Your task to perform on an android device: turn on showing notifications on the lock screen Image 0: 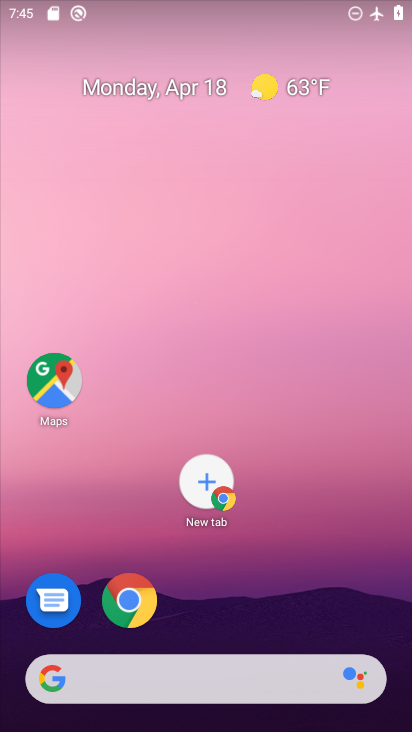
Step 0: drag from (309, 605) to (206, 1)
Your task to perform on an android device: turn on showing notifications on the lock screen Image 1: 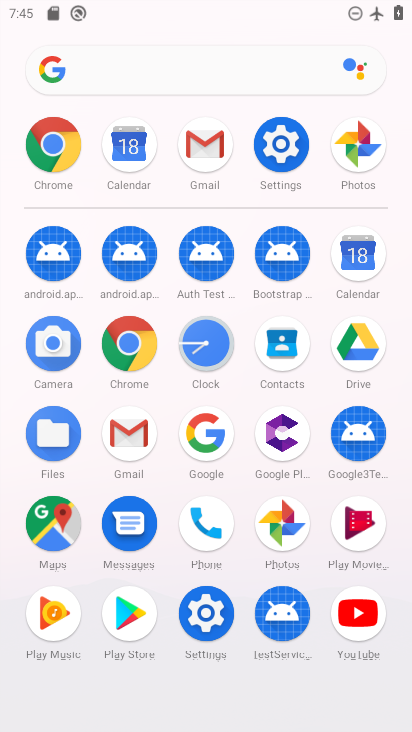
Step 1: click (281, 149)
Your task to perform on an android device: turn on showing notifications on the lock screen Image 2: 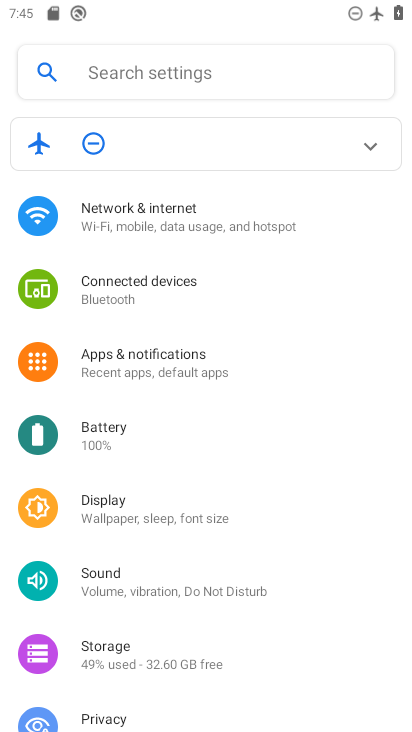
Step 2: click (171, 351)
Your task to perform on an android device: turn on showing notifications on the lock screen Image 3: 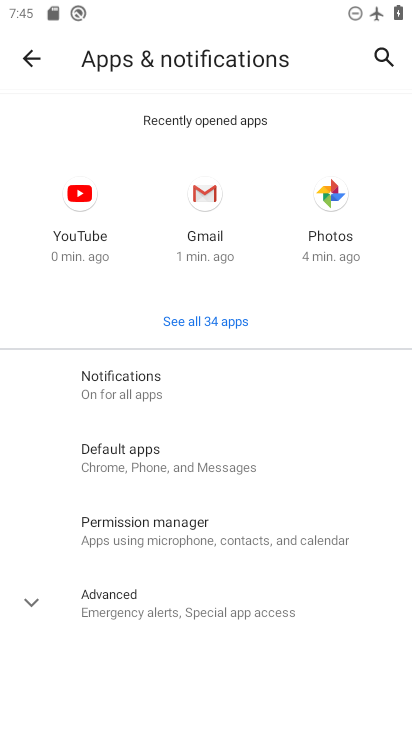
Step 3: click (125, 376)
Your task to perform on an android device: turn on showing notifications on the lock screen Image 4: 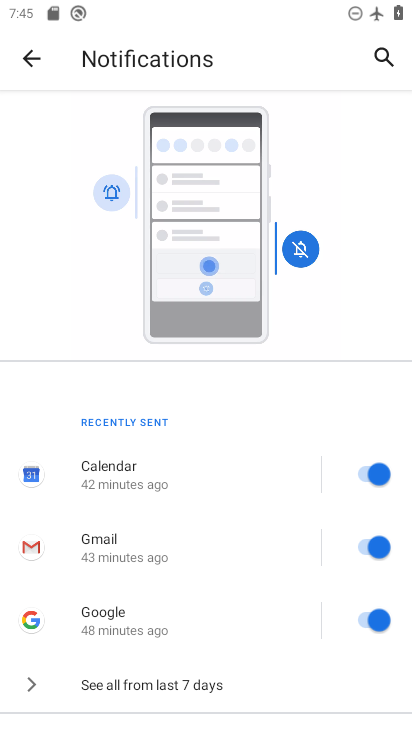
Step 4: drag from (264, 651) to (225, 30)
Your task to perform on an android device: turn on showing notifications on the lock screen Image 5: 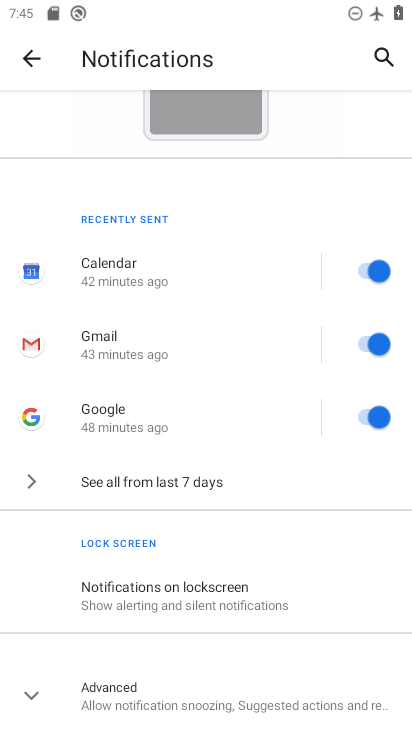
Step 5: click (162, 584)
Your task to perform on an android device: turn on showing notifications on the lock screen Image 6: 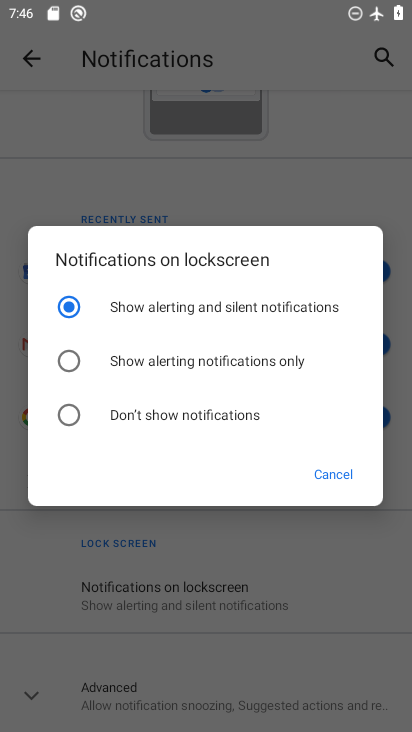
Step 6: task complete